Your task to perform on an android device: Open Google Chrome and click the shortcut for Amazon.com Image 0: 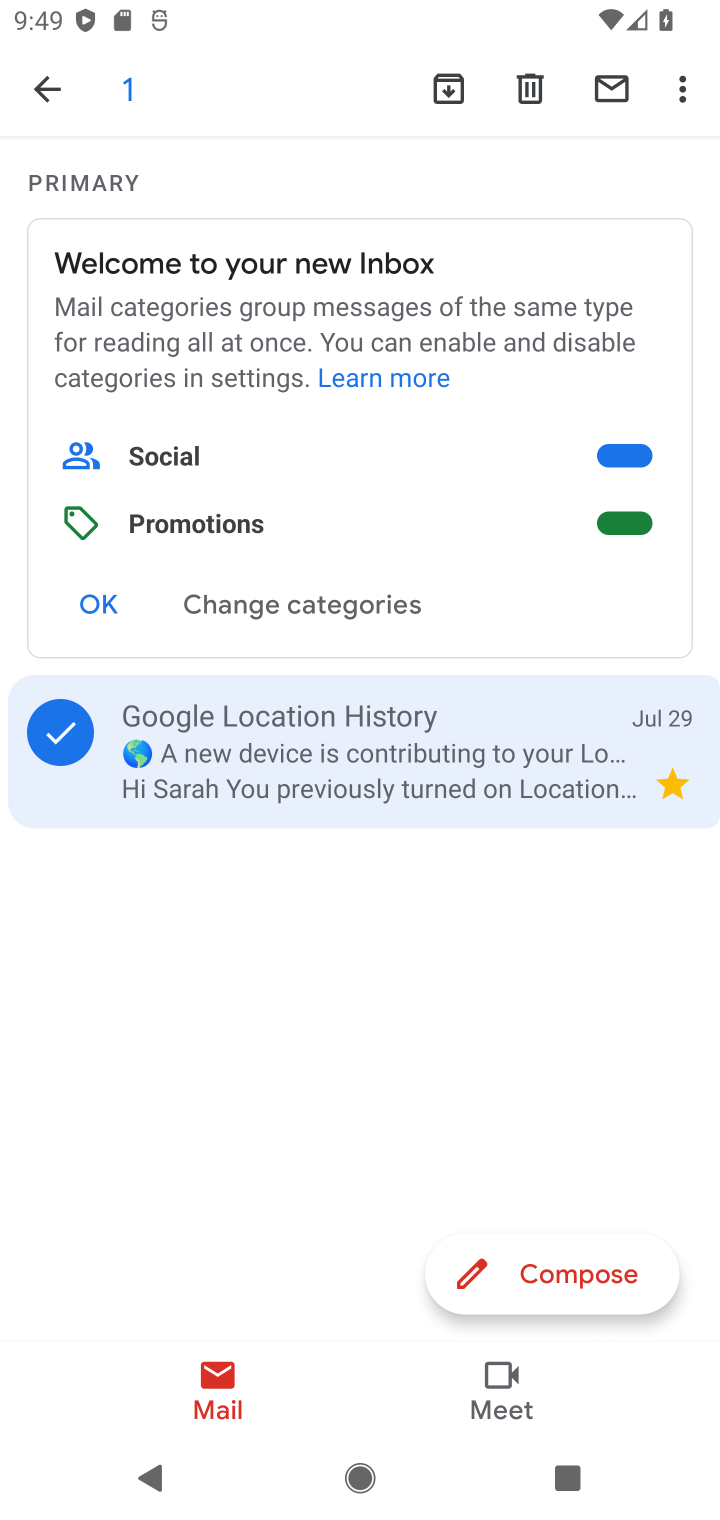
Step 0: press back button
Your task to perform on an android device: Open Google Chrome and click the shortcut for Amazon.com Image 1: 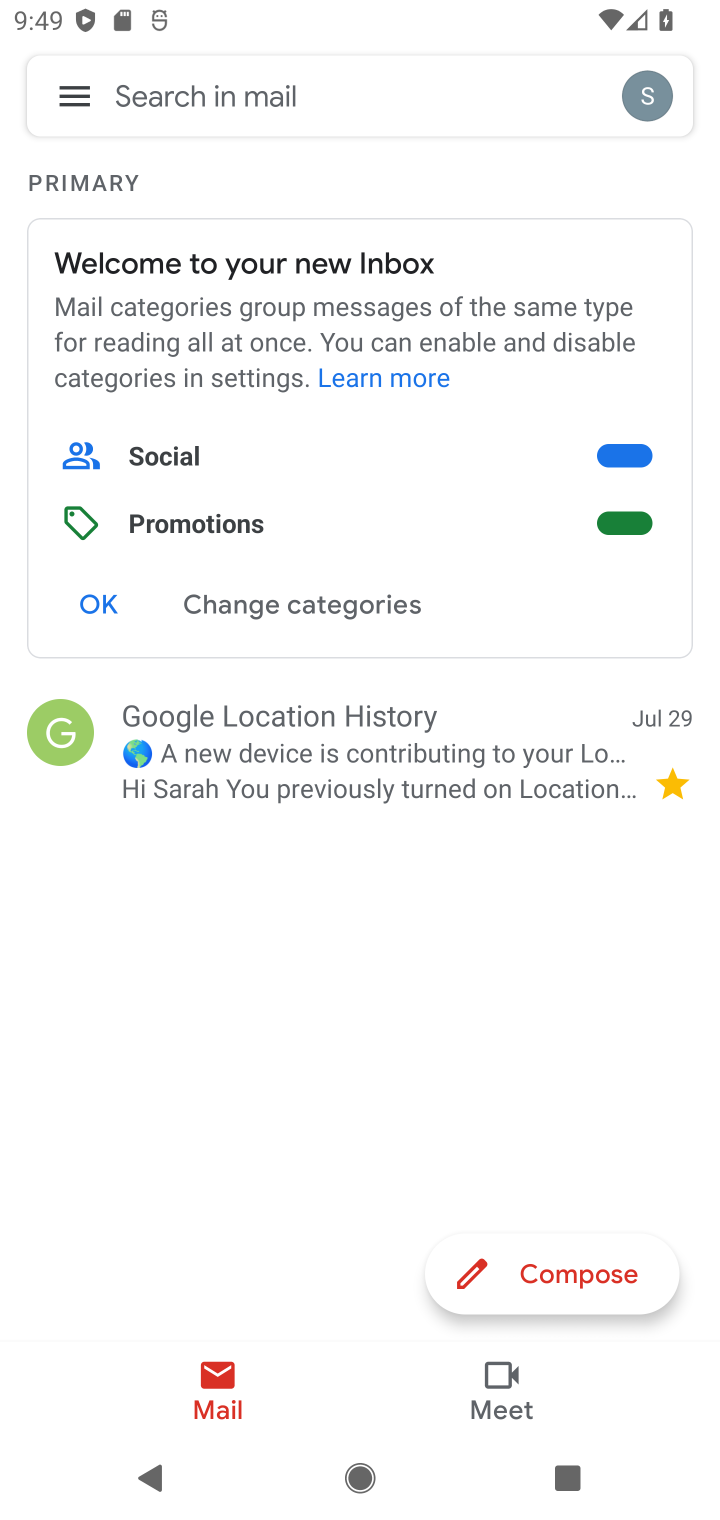
Step 1: press back button
Your task to perform on an android device: Open Google Chrome and click the shortcut for Amazon.com Image 2: 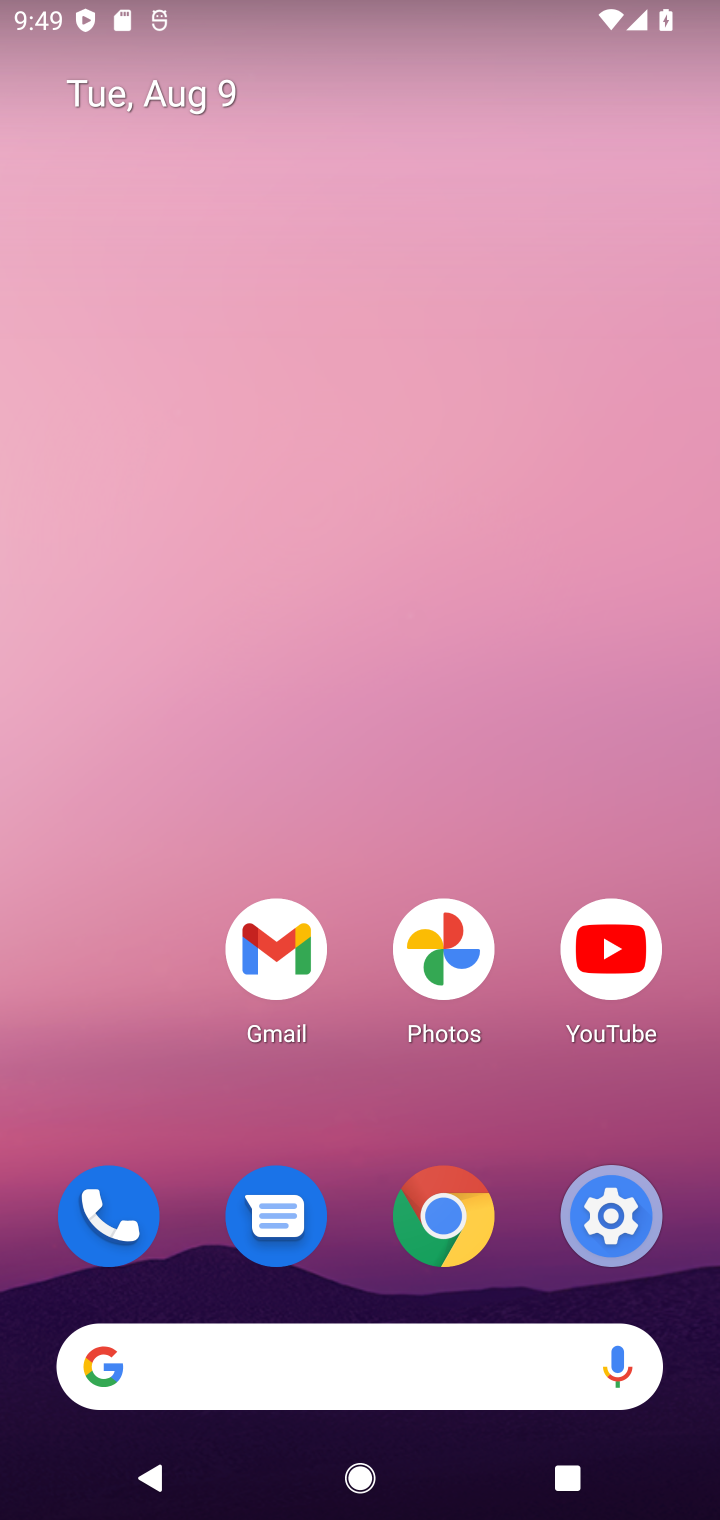
Step 2: click (451, 1218)
Your task to perform on an android device: Open Google Chrome and click the shortcut for Amazon.com Image 3: 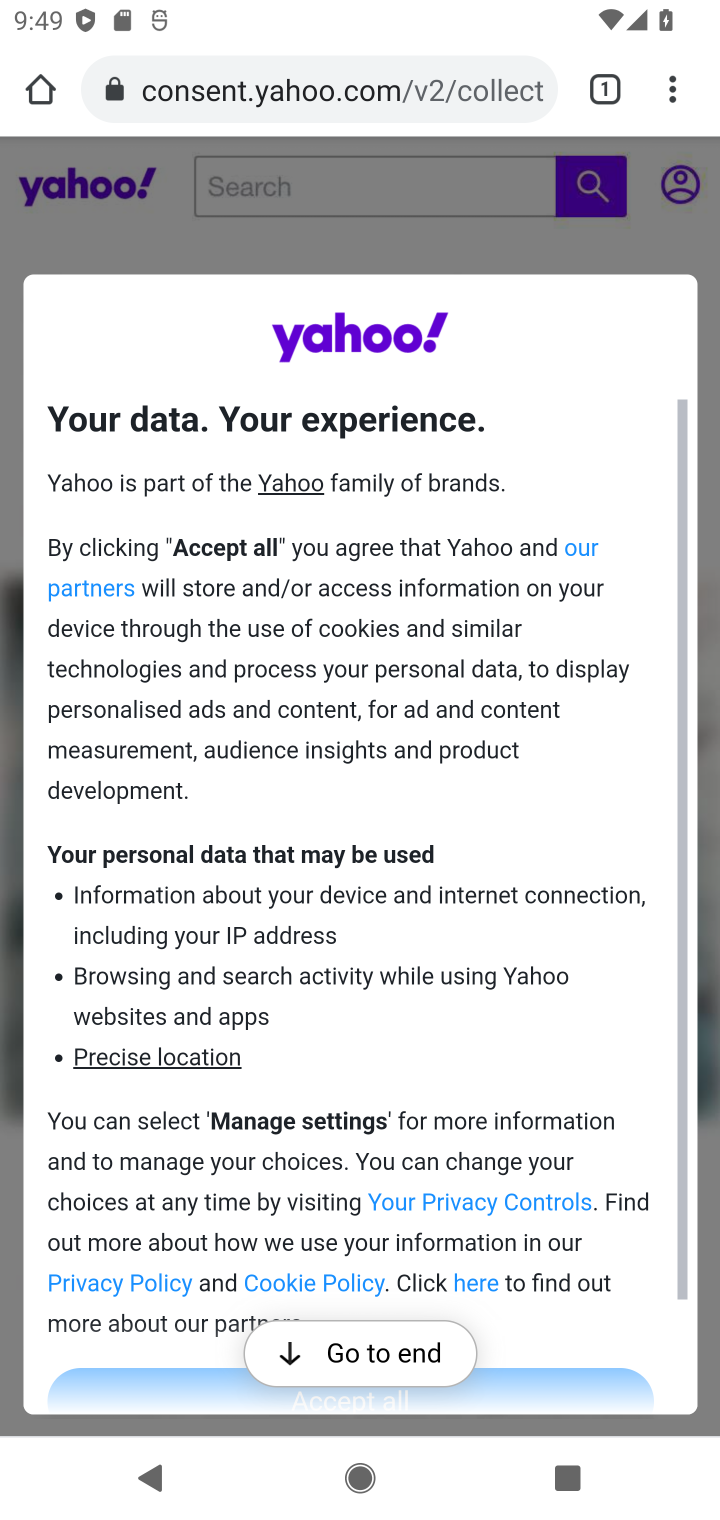
Step 3: click (620, 81)
Your task to perform on an android device: Open Google Chrome and click the shortcut for Amazon.com Image 4: 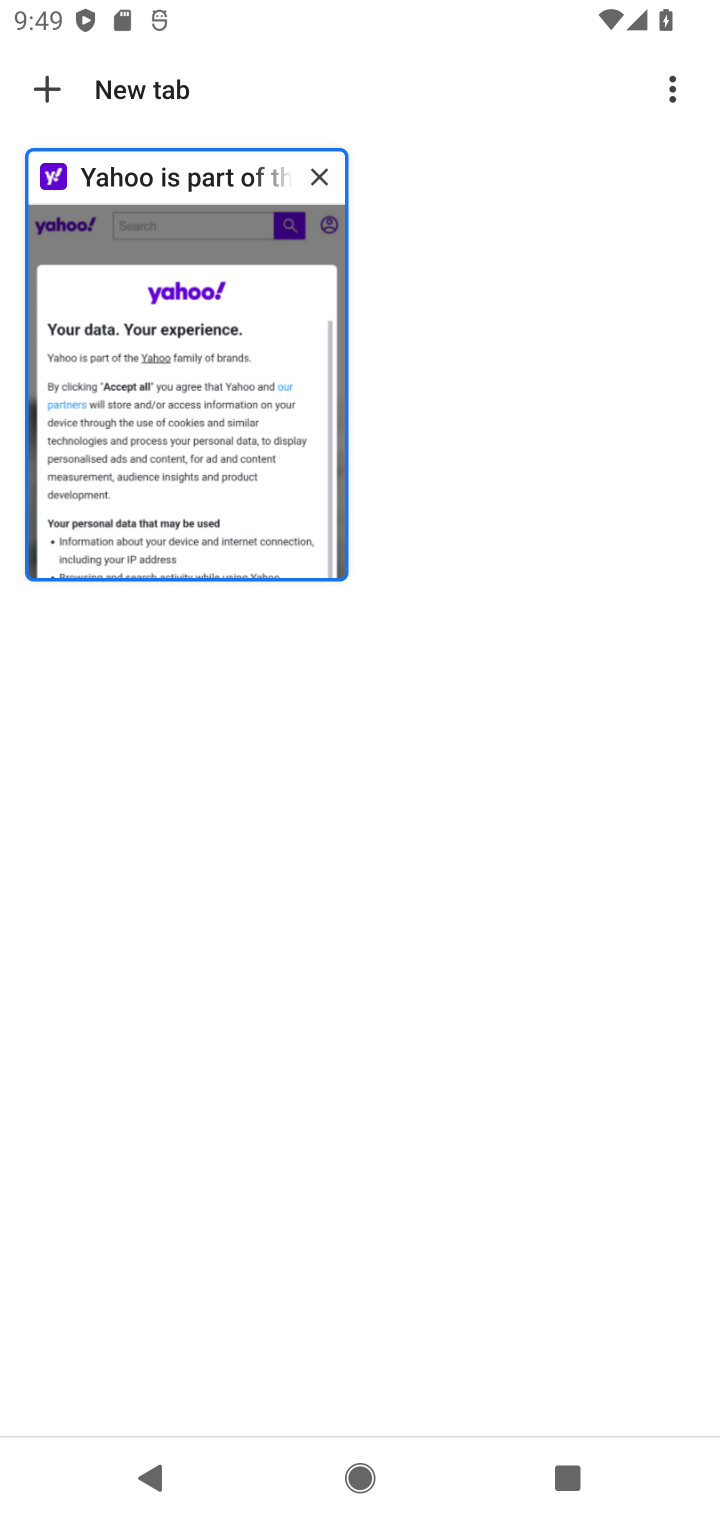
Step 4: click (43, 77)
Your task to perform on an android device: Open Google Chrome and click the shortcut for Amazon.com Image 5: 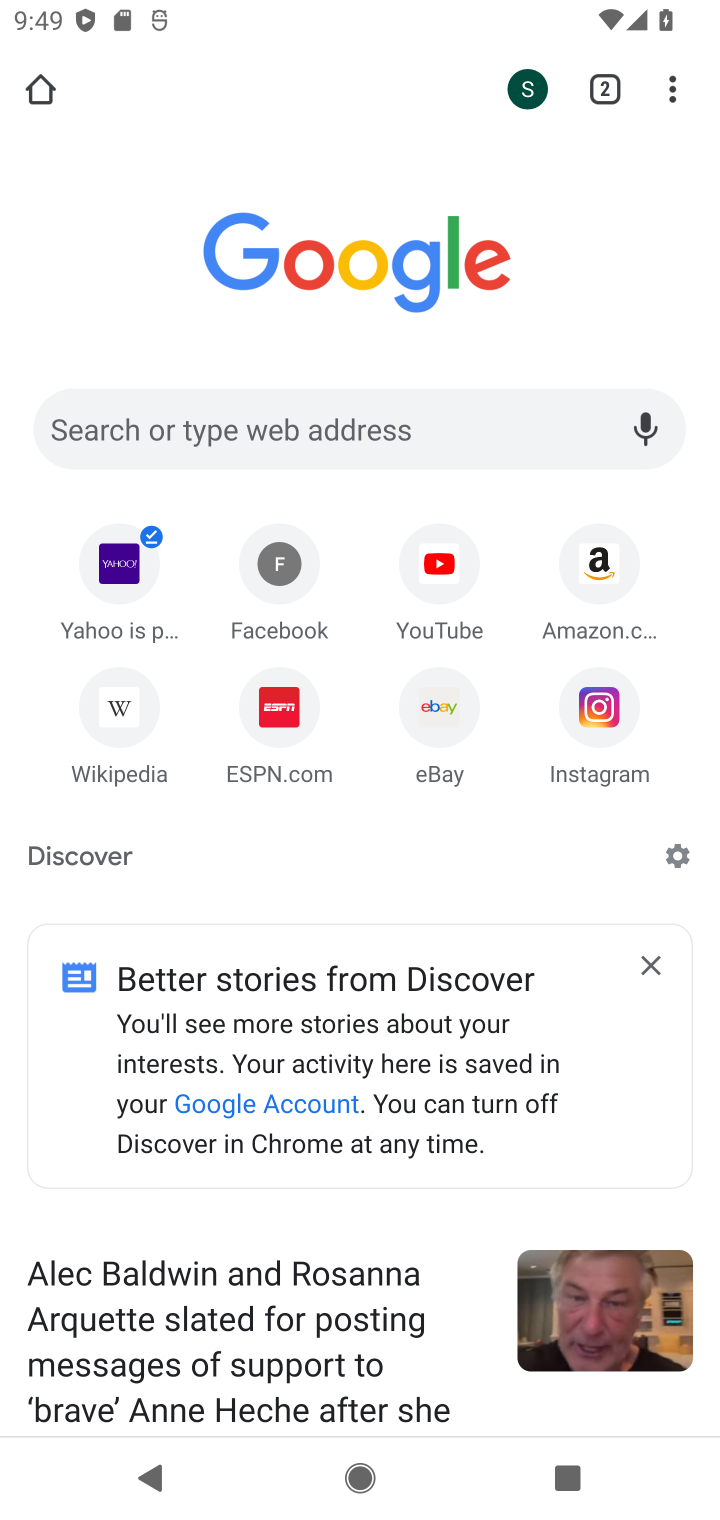
Step 5: click (594, 564)
Your task to perform on an android device: Open Google Chrome and click the shortcut for Amazon.com Image 6: 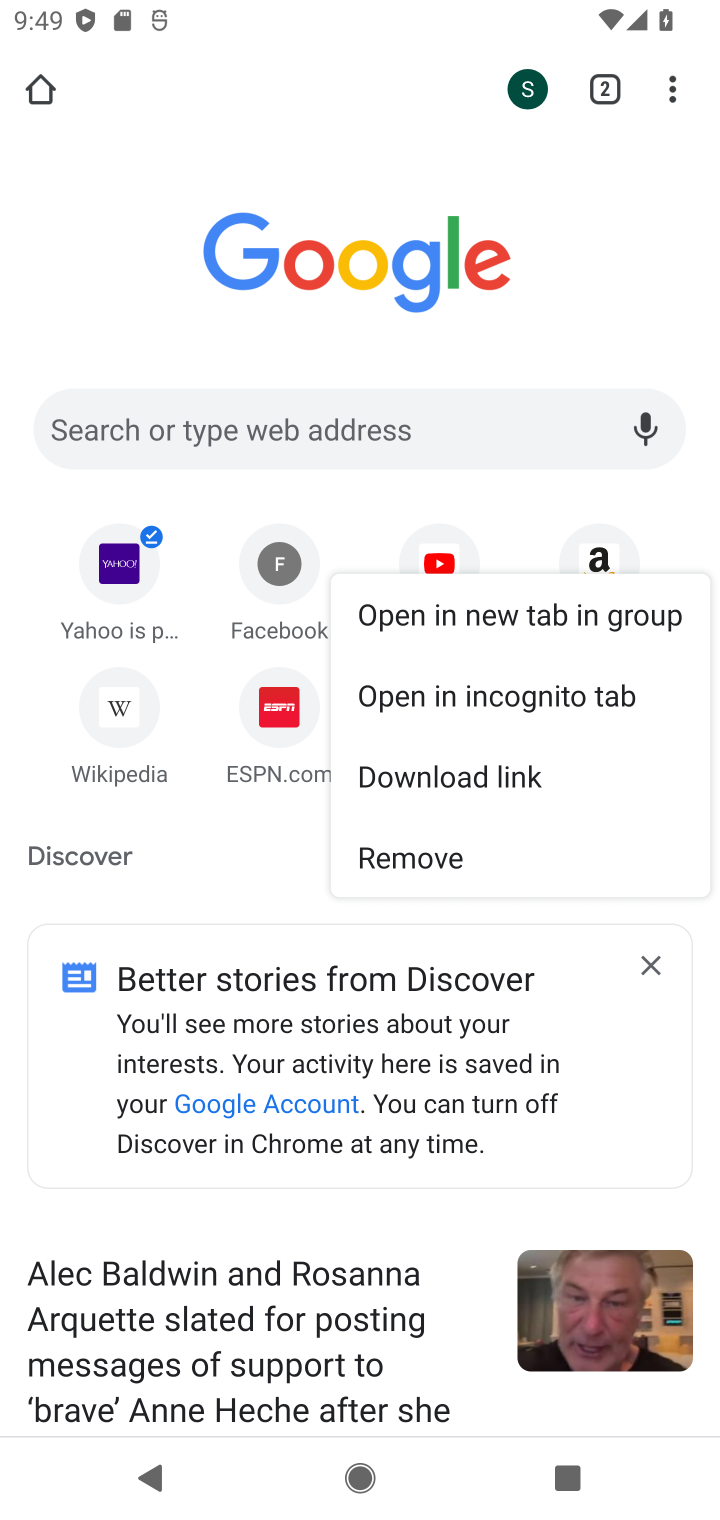
Step 6: click (583, 561)
Your task to perform on an android device: Open Google Chrome and click the shortcut for Amazon.com Image 7: 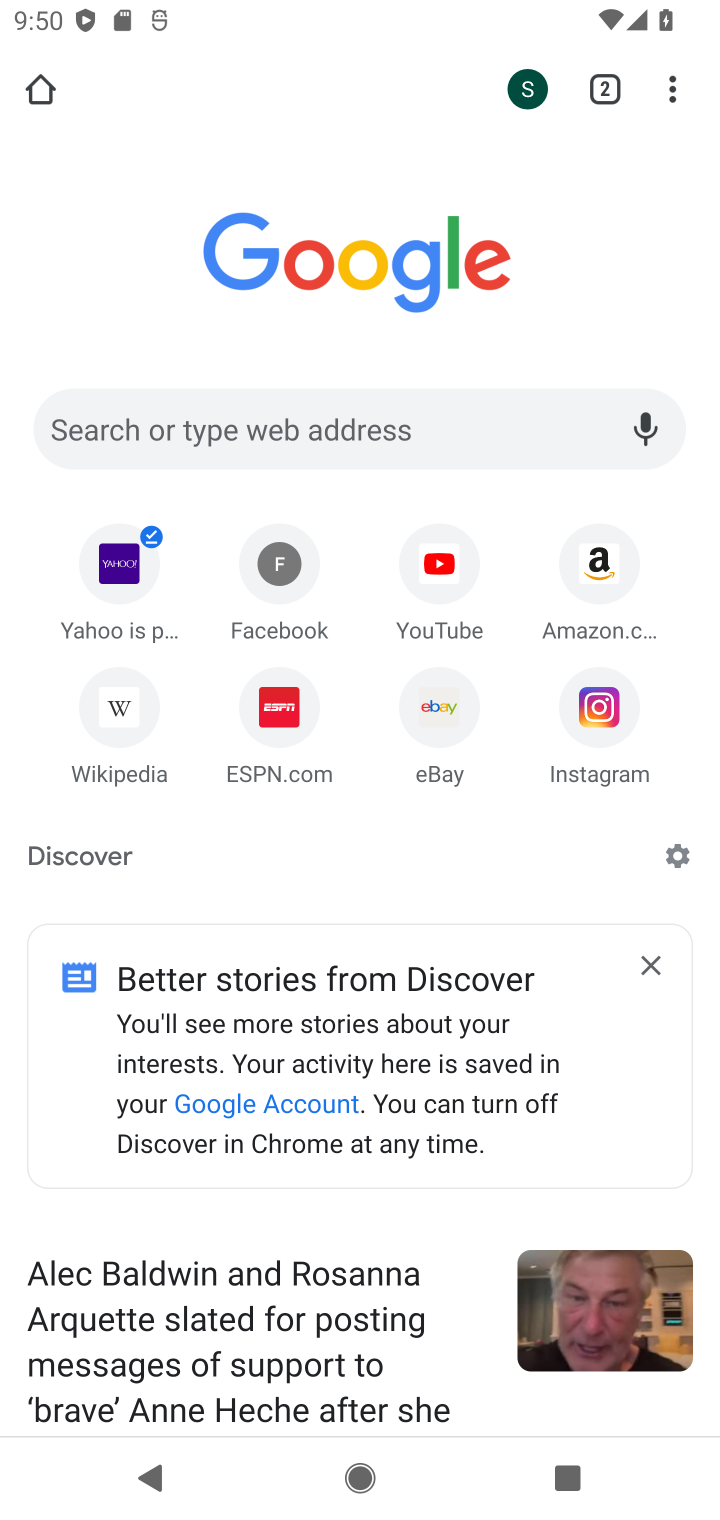
Step 7: click (612, 565)
Your task to perform on an android device: Open Google Chrome and click the shortcut for Amazon.com Image 8: 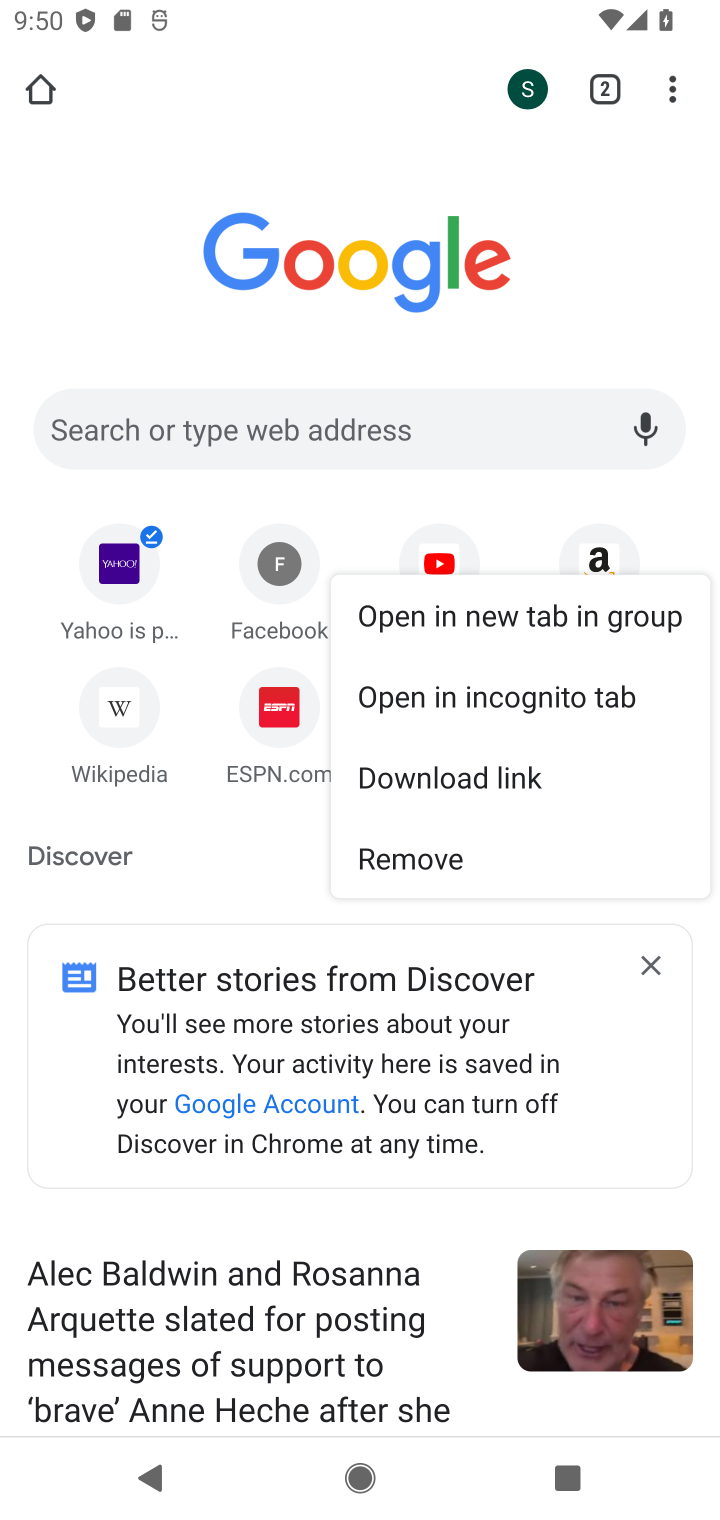
Step 8: click (612, 565)
Your task to perform on an android device: Open Google Chrome and click the shortcut for Amazon.com Image 9: 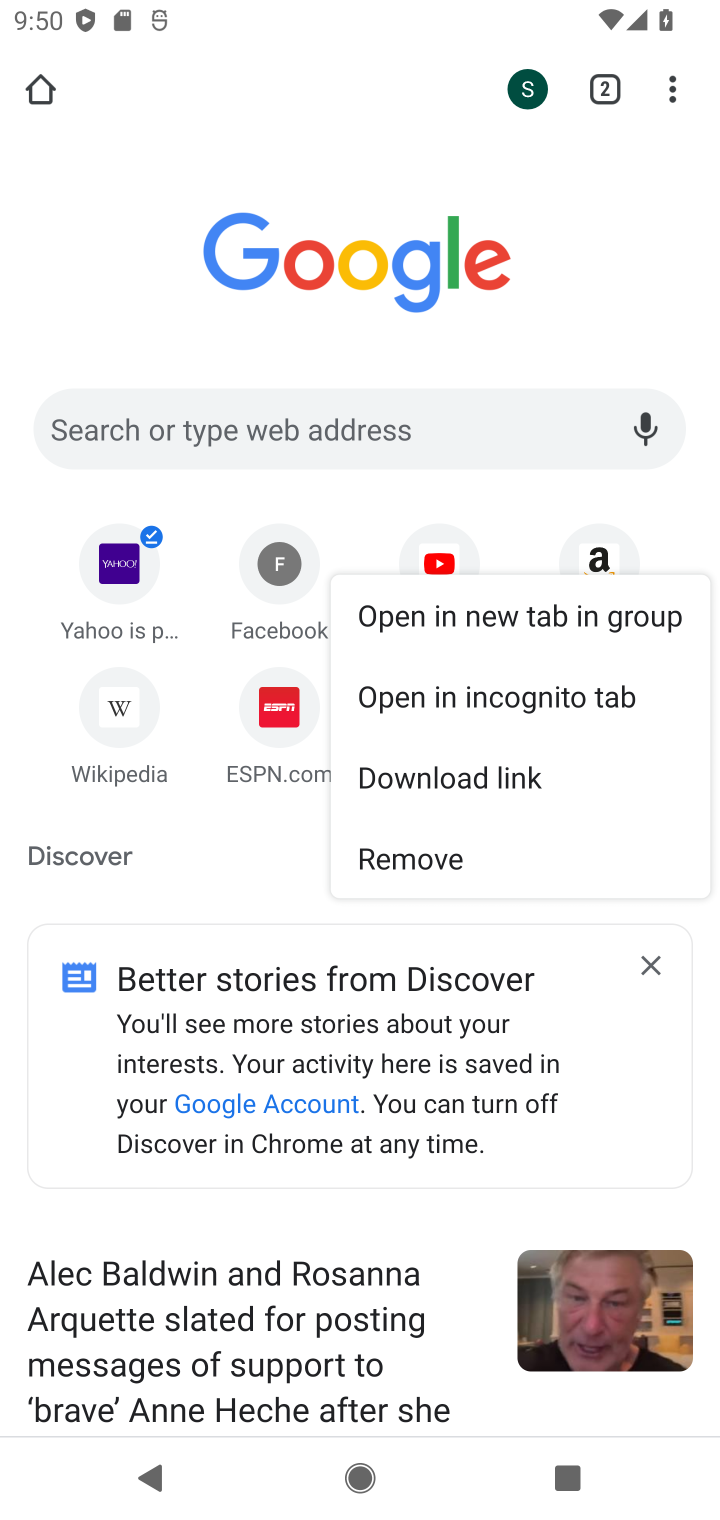
Step 9: click (598, 544)
Your task to perform on an android device: Open Google Chrome and click the shortcut for Amazon.com Image 10: 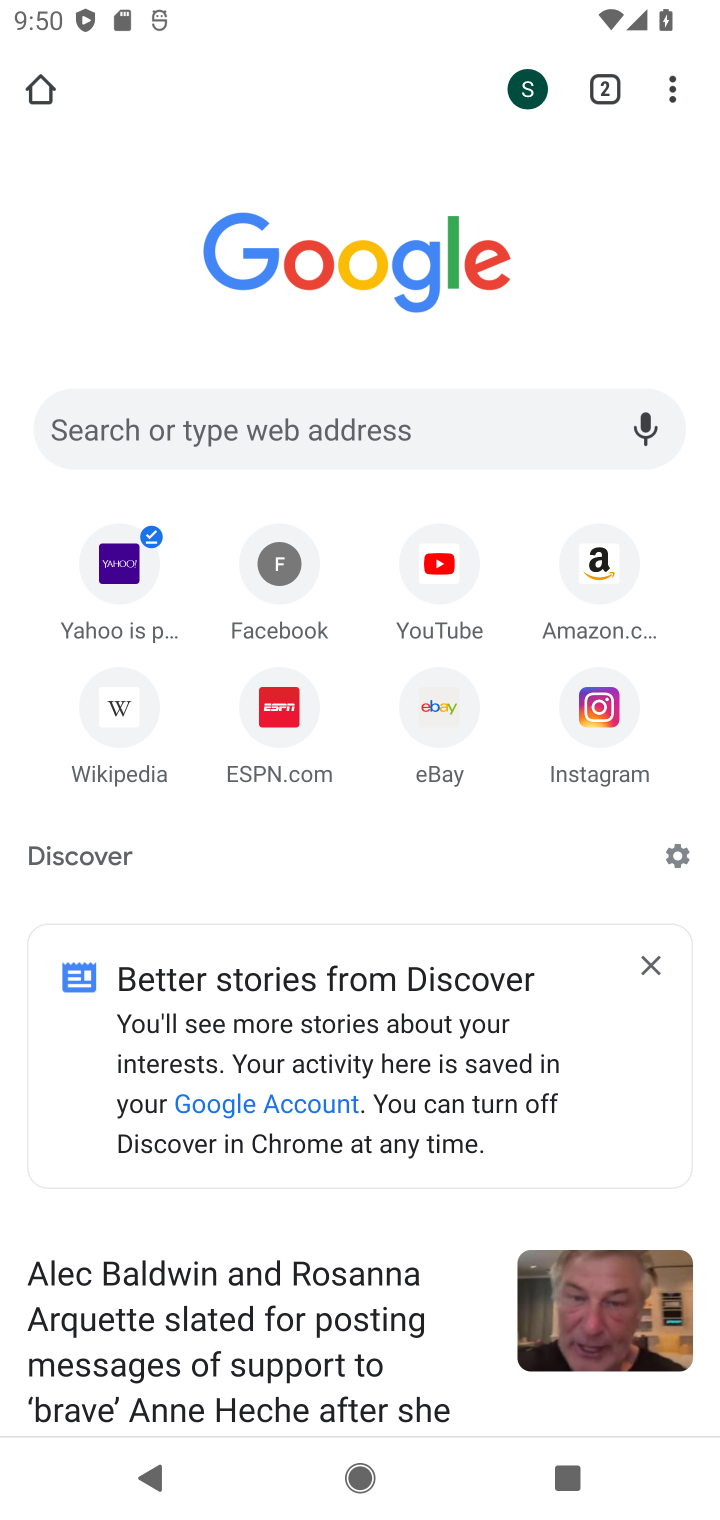
Step 10: click (609, 569)
Your task to perform on an android device: Open Google Chrome and click the shortcut for Amazon.com Image 11: 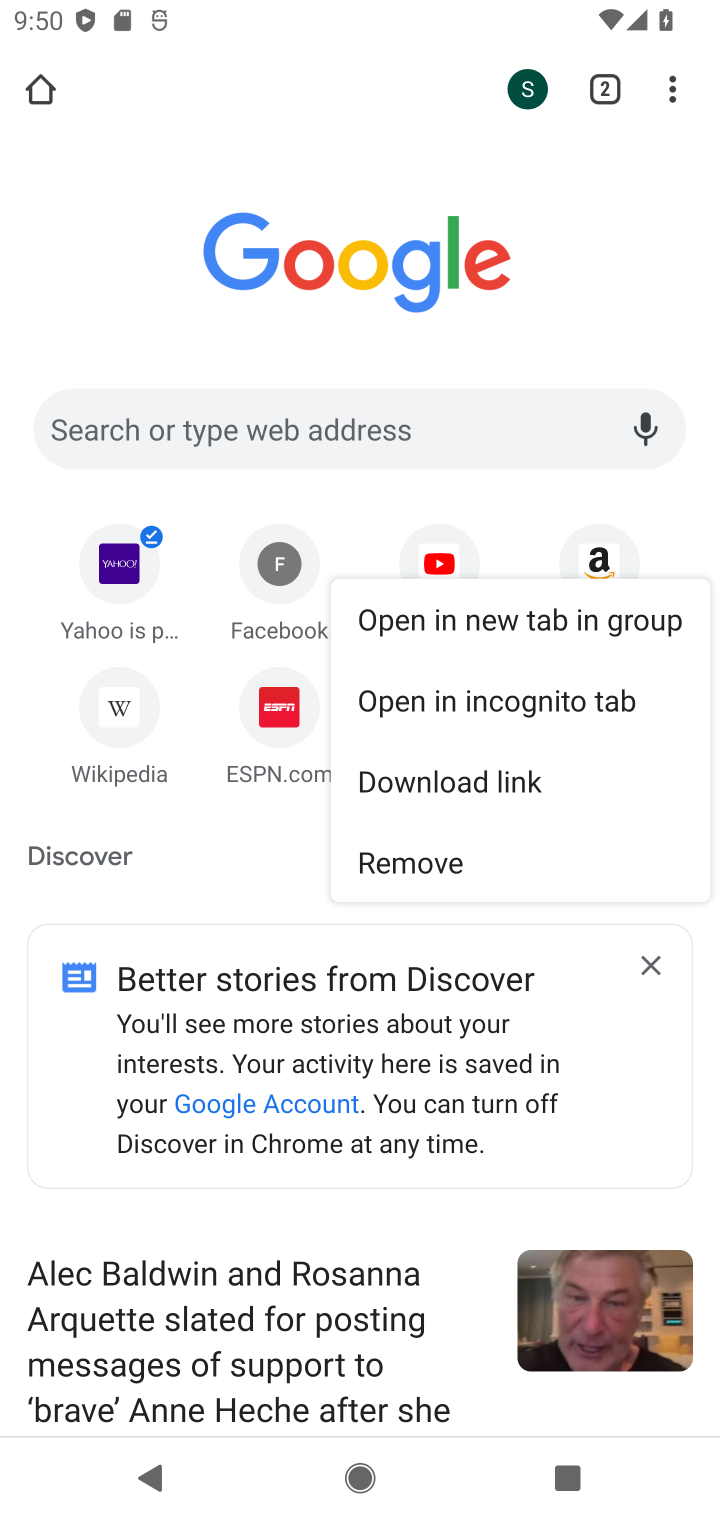
Step 11: click (598, 538)
Your task to perform on an android device: Open Google Chrome and click the shortcut for Amazon.com Image 12: 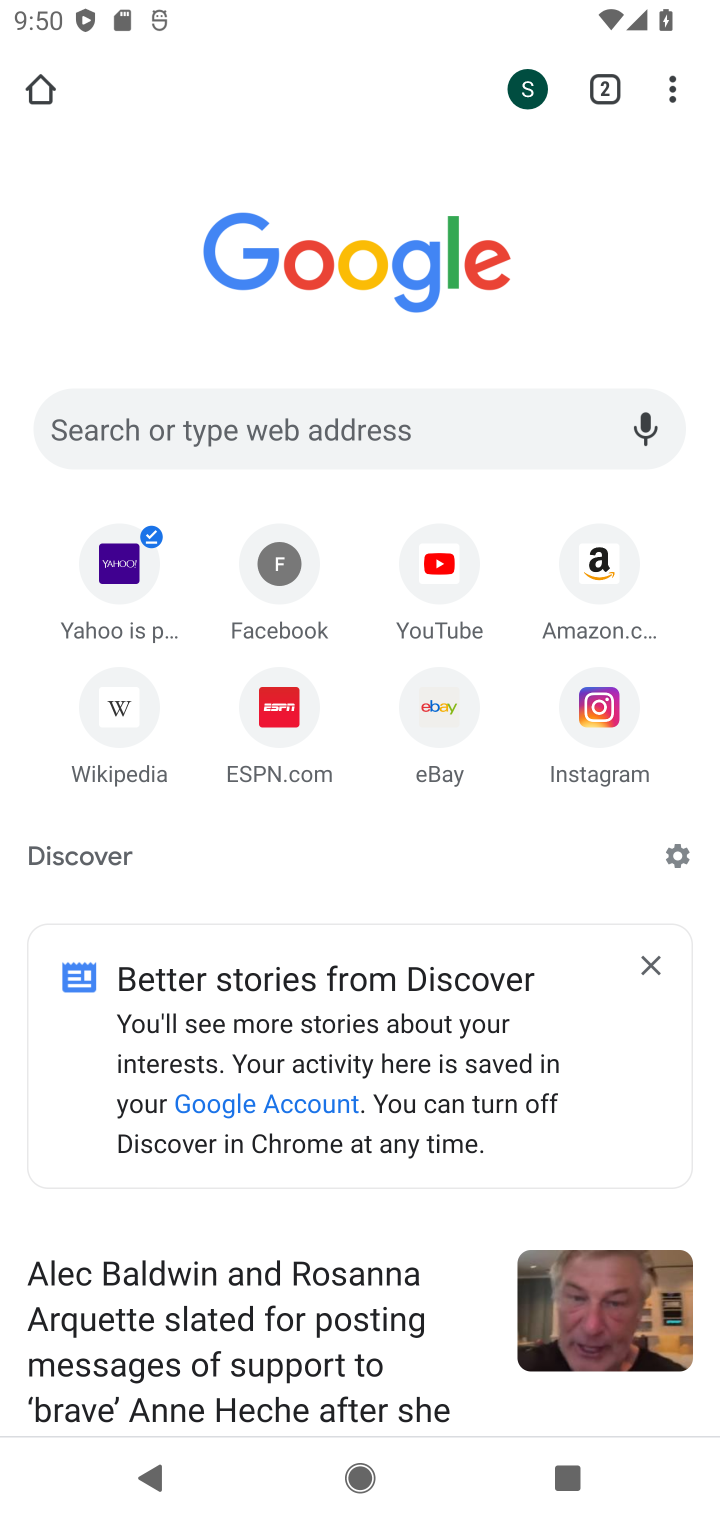
Step 12: click (594, 637)
Your task to perform on an android device: Open Google Chrome and click the shortcut for Amazon.com Image 13: 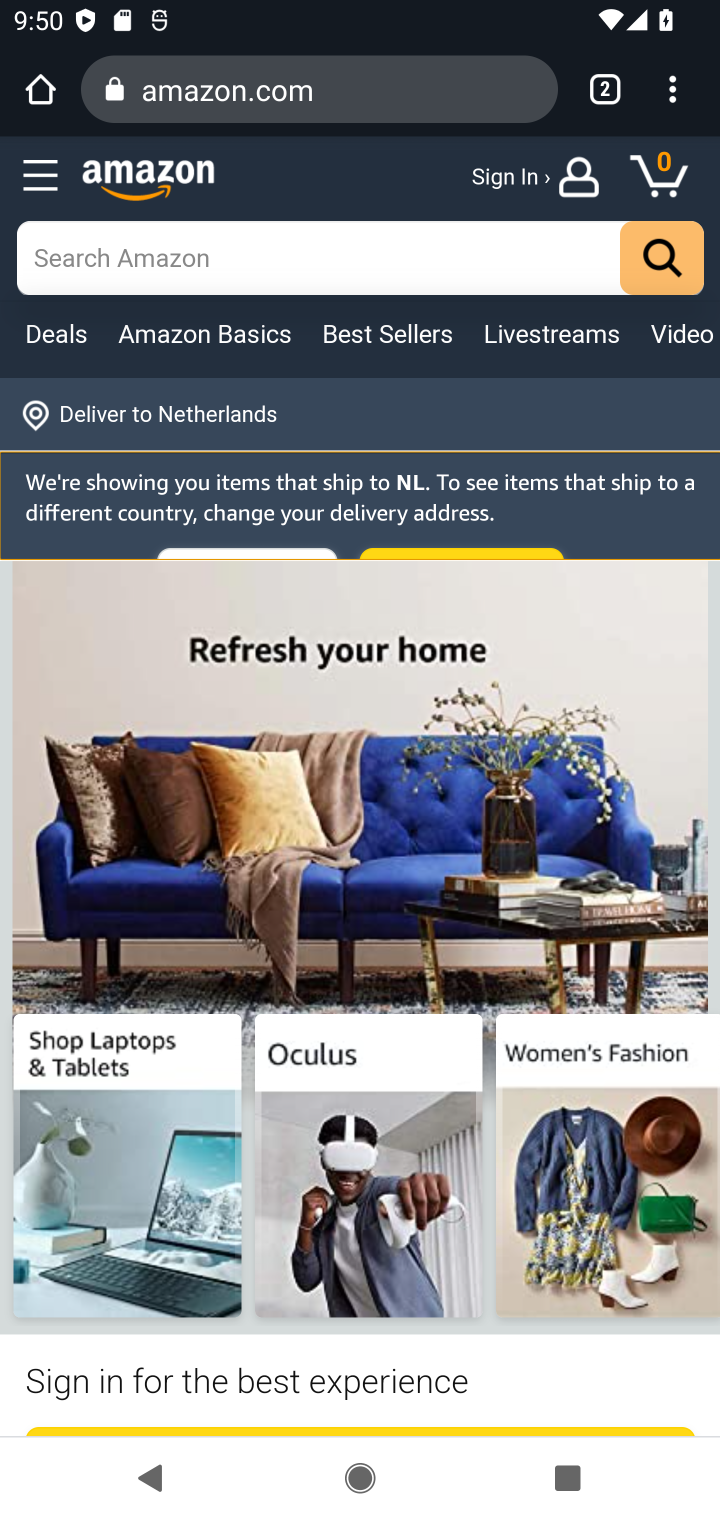
Step 13: task complete